Your task to perform on an android device: turn off data saver in the chrome app Image 0: 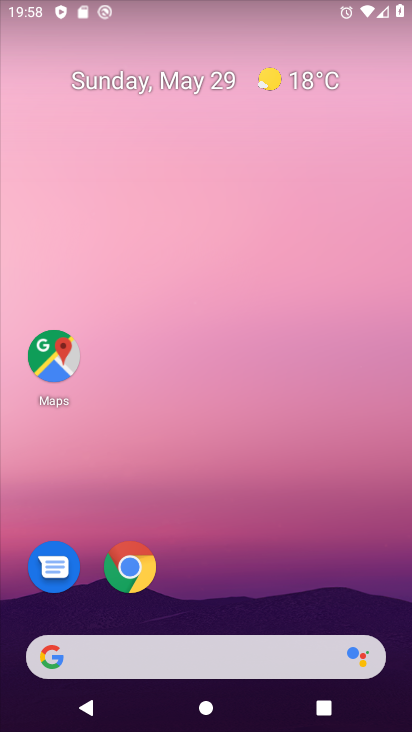
Step 0: click (126, 562)
Your task to perform on an android device: turn off data saver in the chrome app Image 1: 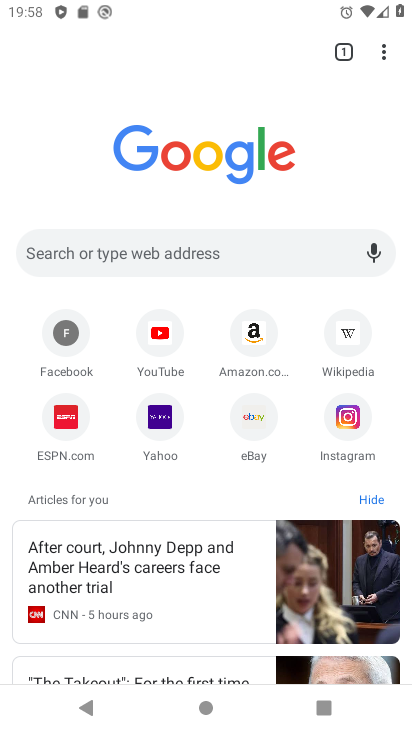
Step 1: click (379, 48)
Your task to perform on an android device: turn off data saver in the chrome app Image 2: 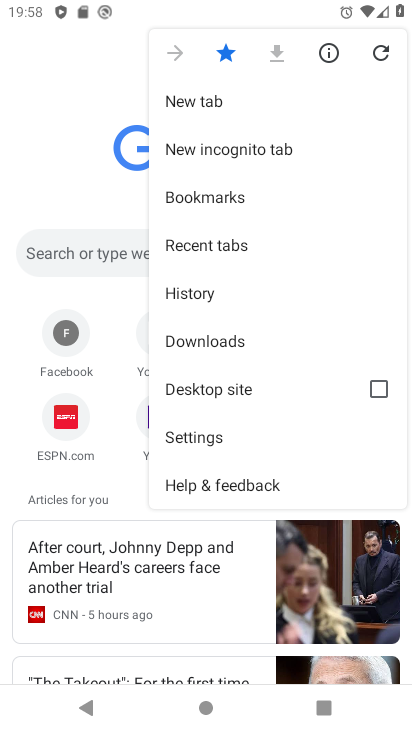
Step 2: click (194, 435)
Your task to perform on an android device: turn off data saver in the chrome app Image 3: 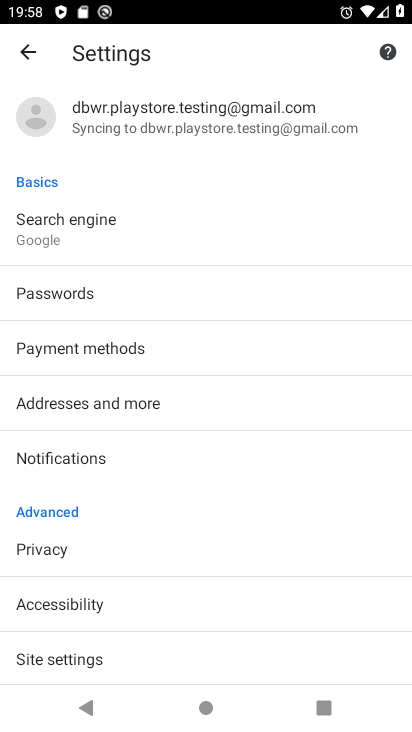
Step 3: drag from (201, 649) to (226, 322)
Your task to perform on an android device: turn off data saver in the chrome app Image 4: 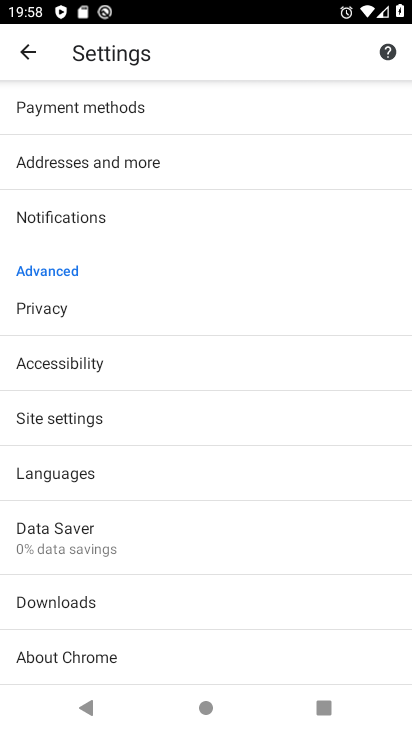
Step 4: click (74, 528)
Your task to perform on an android device: turn off data saver in the chrome app Image 5: 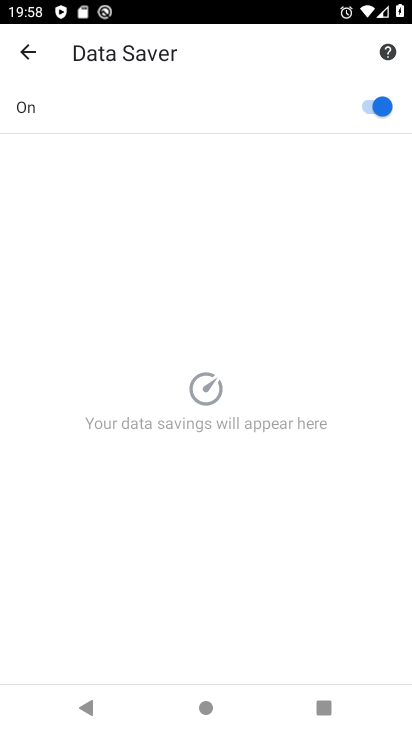
Step 5: click (359, 107)
Your task to perform on an android device: turn off data saver in the chrome app Image 6: 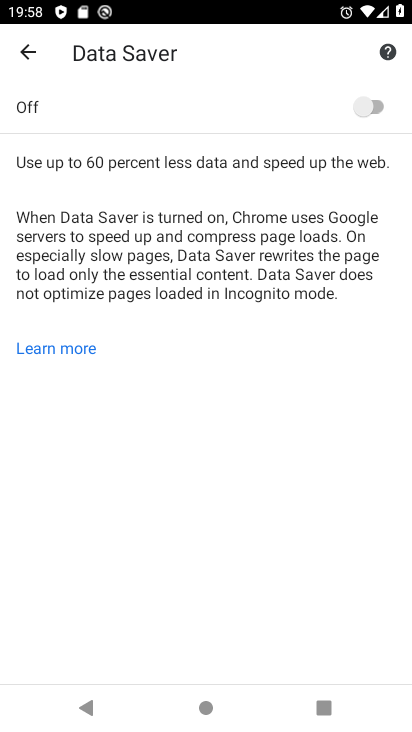
Step 6: task complete